Your task to perform on an android device: Open settings Image 0: 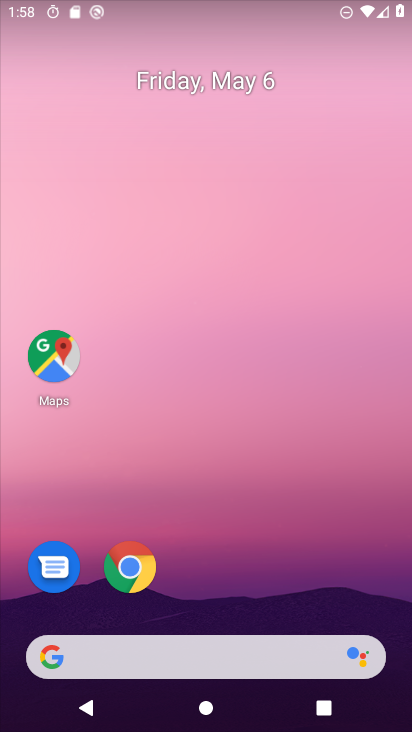
Step 0: drag from (299, 686) to (291, 156)
Your task to perform on an android device: Open settings Image 1: 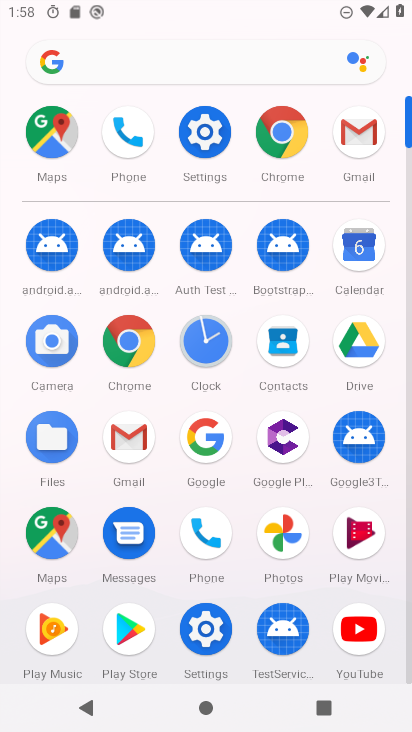
Step 1: click (213, 148)
Your task to perform on an android device: Open settings Image 2: 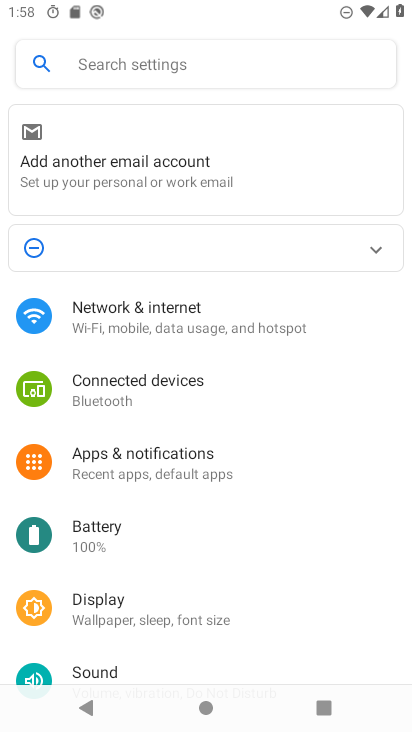
Step 2: task complete